Your task to perform on an android device: turn on data saver in the chrome app Image 0: 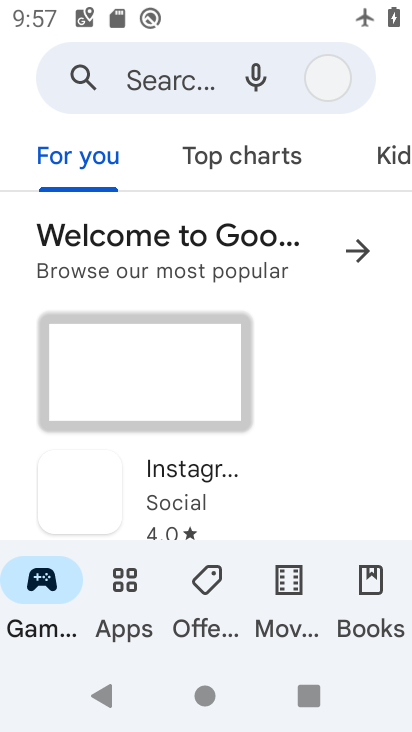
Step 0: press home button
Your task to perform on an android device: turn on data saver in the chrome app Image 1: 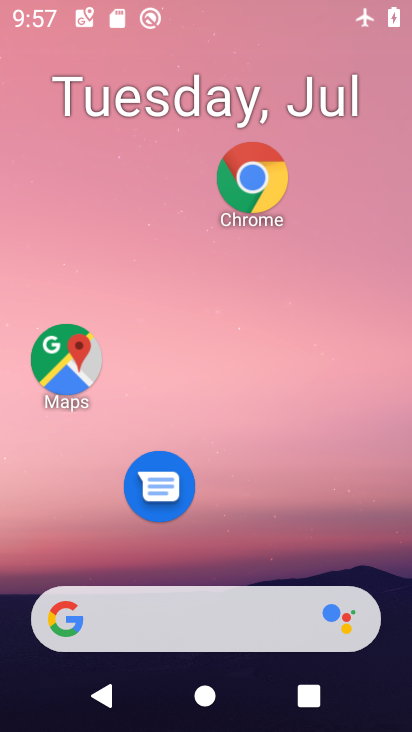
Step 1: drag from (263, 668) to (337, 210)
Your task to perform on an android device: turn on data saver in the chrome app Image 2: 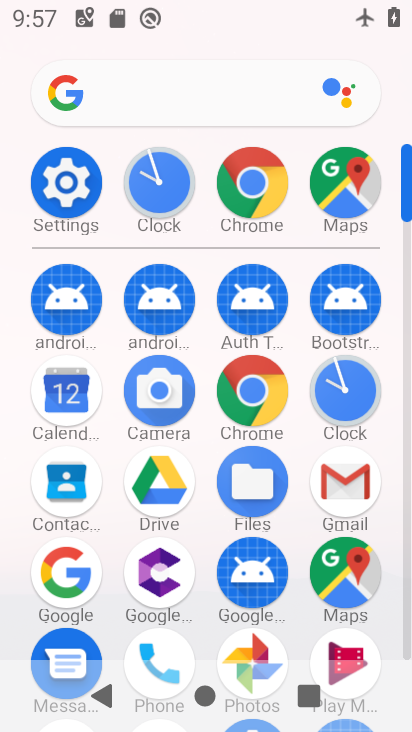
Step 2: click (246, 413)
Your task to perform on an android device: turn on data saver in the chrome app Image 3: 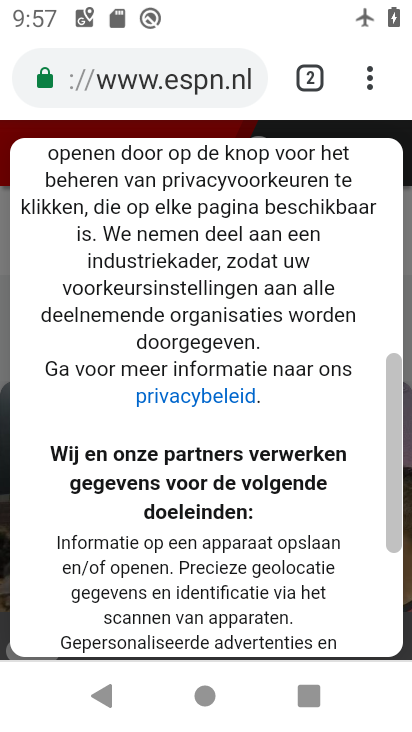
Step 3: click (379, 85)
Your task to perform on an android device: turn on data saver in the chrome app Image 4: 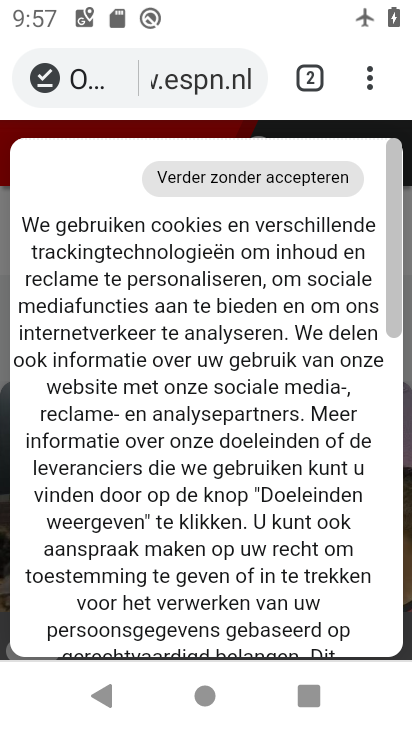
Step 4: click (370, 94)
Your task to perform on an android device: turn on data saver in the chrome app Image 5: 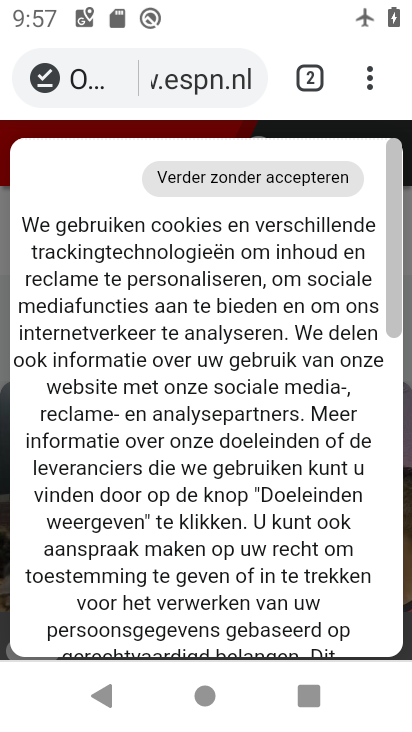
Step 5: click (369, 91)
Your task to perform on an android device: turn on data saver in the chrome app Image 6: 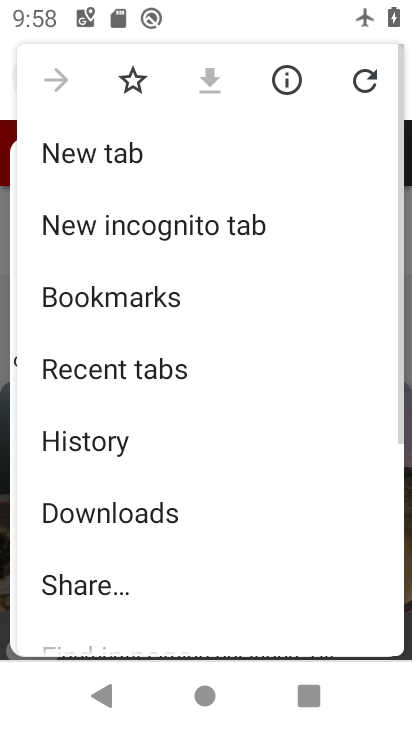
Step 6: drag from (202, 468) to (250, 136)
Your task to perform on an android device: turn on data saver in the chrome app Image 7: 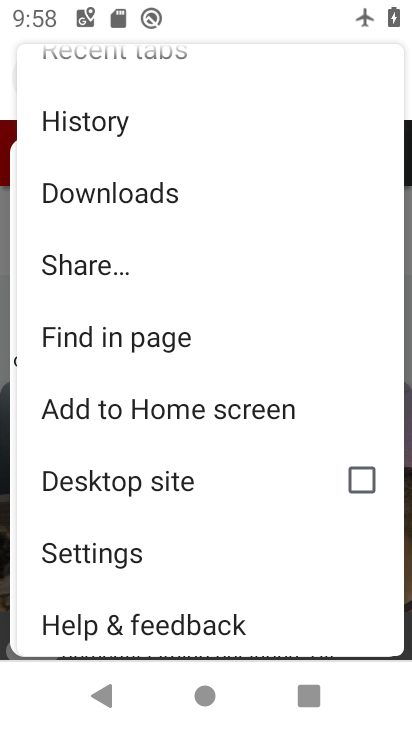
Step 7: click (121, 561)
Your task to perform on an android device: turn on data saver in the chrome app Image 8: 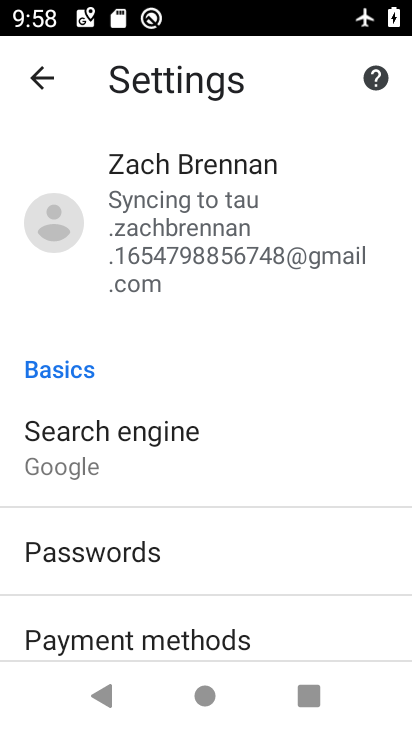
Step 8: drag from (150, 538) to (178, 251)
Your task to perform on an android device: turn on data saver in the chrome app Image 9: 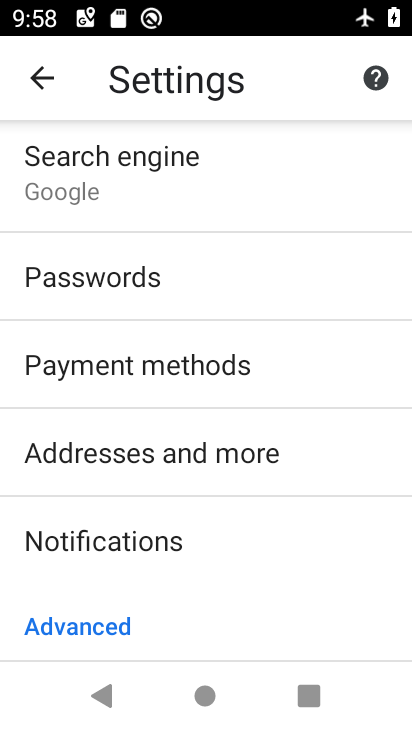
Step 9: drag from (140, 587) to (208, 262)
Your task to perform on an android device: turn on data saver in the chrome app Image 10: 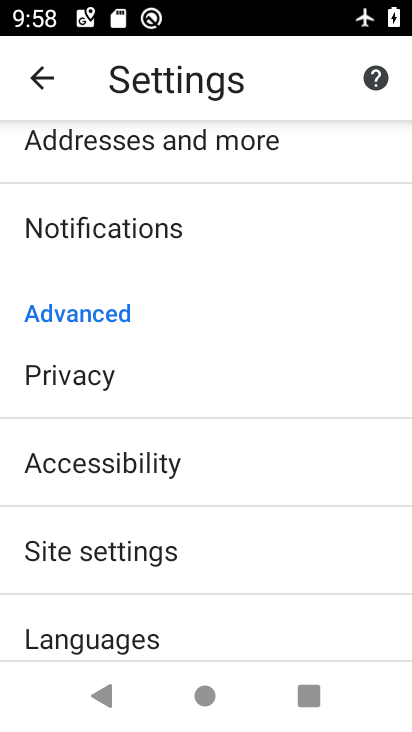
Step 10: drag from (190, 562) to (229, 268)
Your task to perform on an android device: turn on data saver in the chrome app Image 11: 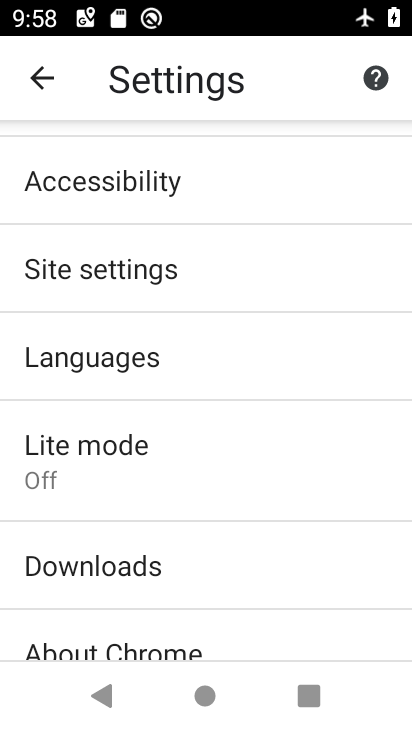
Step 11: click (104, 466)
Your task to perform on an android device: turn on data saver in the chrome app Image 12: 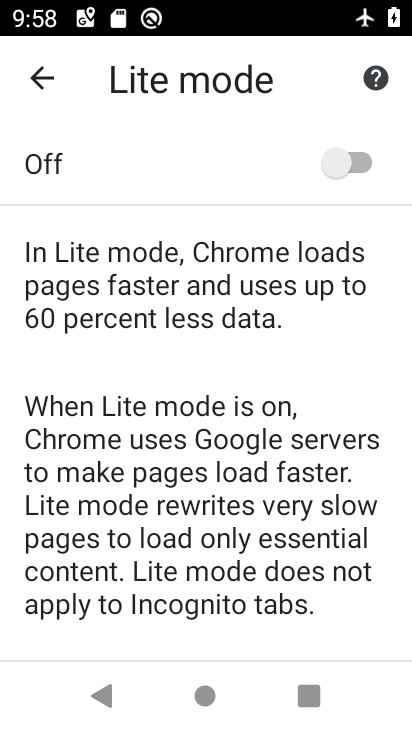
Step 12: click (343, 170)
Your task to perform on an android device: turn on data saver in the chrome app Image 13: 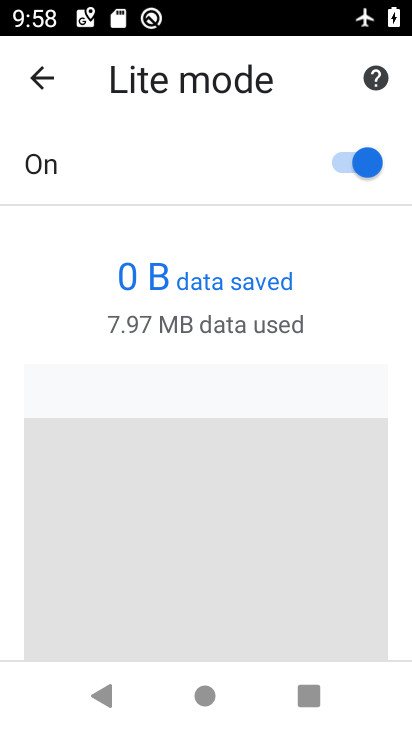
Step 13: task complete